Your task to perform on an android device: turn on airplane mode Image 0: 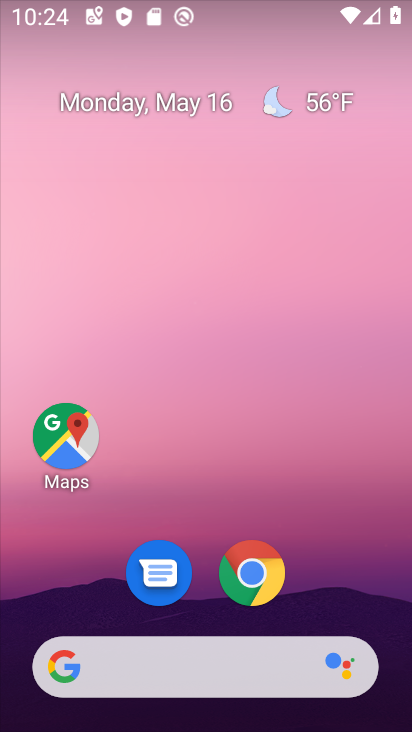
Step 0: drag from (262, 689) to (322, 10)
Your task to perform on an android device: turn on airplane mode Image 1: 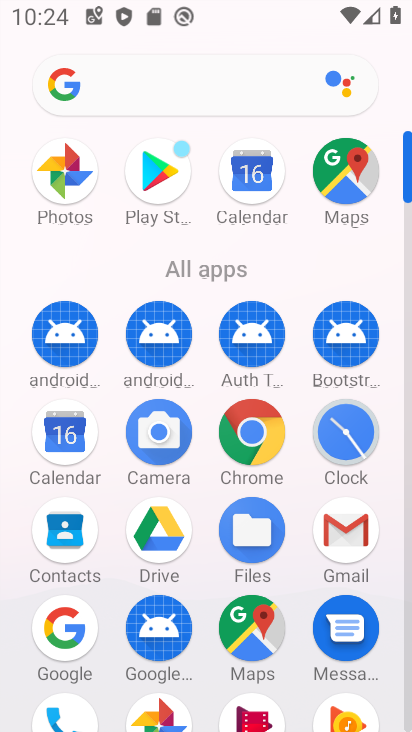
Step 1: drag from (272, 622) to (405, 16)
Your task to perform on an android device: turn on airplane mode Image 2: 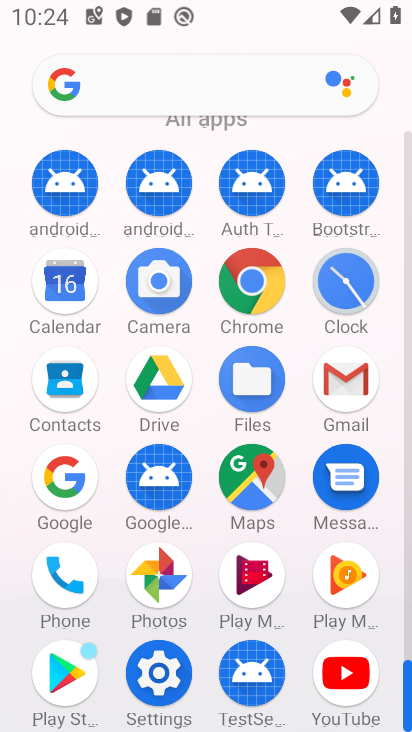
Step 2: click (167, 663)
Your task to perform on an android device: turn on airplane mode Image 3: 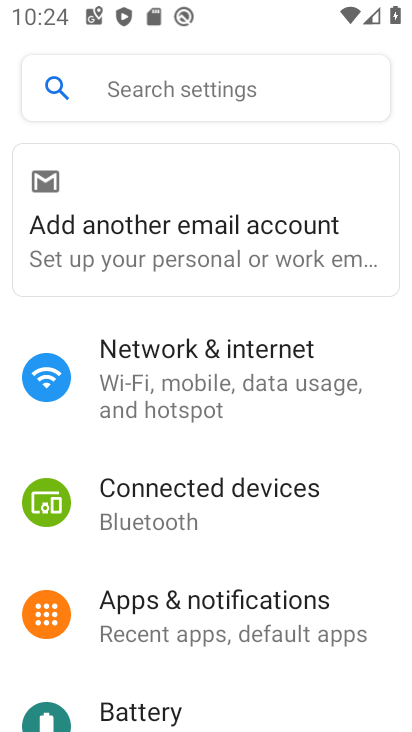
Step 3: click (256, 365)
Your task to perform on an android device: turn on airplane mode Image 4: 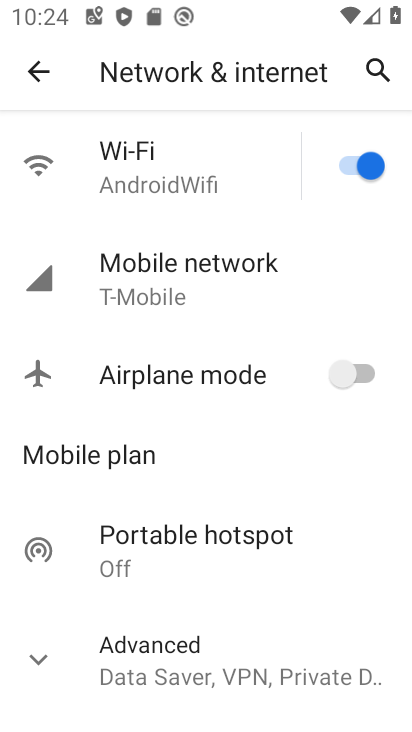
Step 4: click (349, 375)
Your task to perform on an android device: turn on airplane mode Image 5: 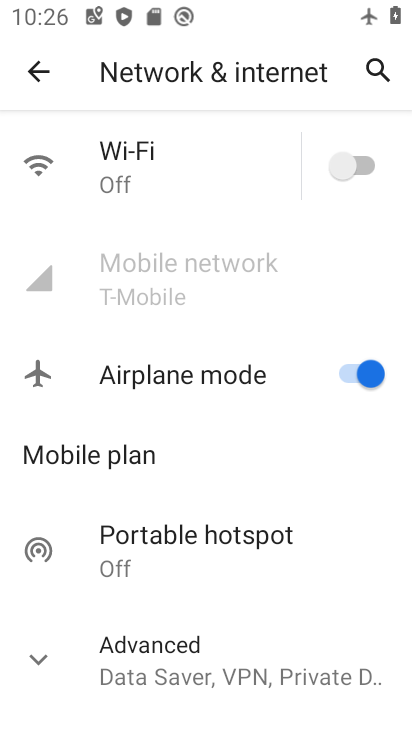
Step 5: task complete